Your task to perform on an android device: change the clock display to digital Image 0: 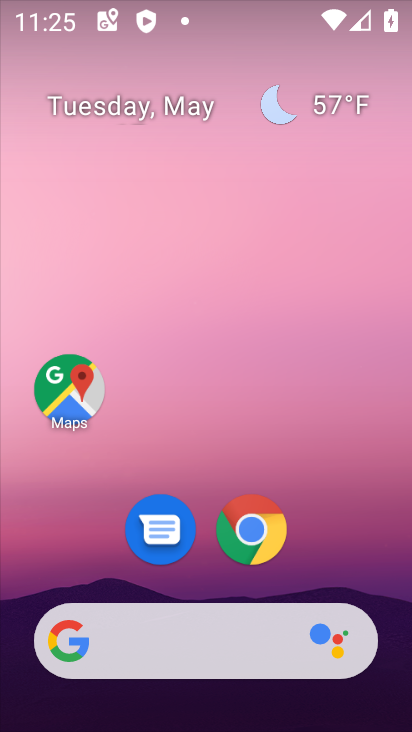
Step 0: drag from (202, 575) to (216, 79)
Your task to perform on an android device: change the clock display to digital Image 1: 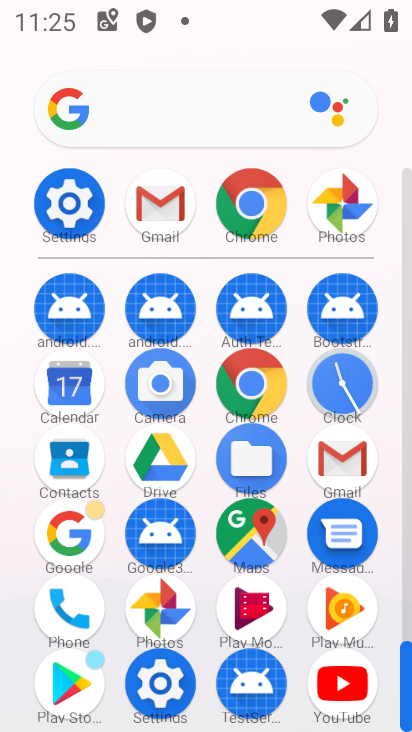
Step 1: click (332, 379)
Your task to perform on an android device: change the clock display to digital Image 2: 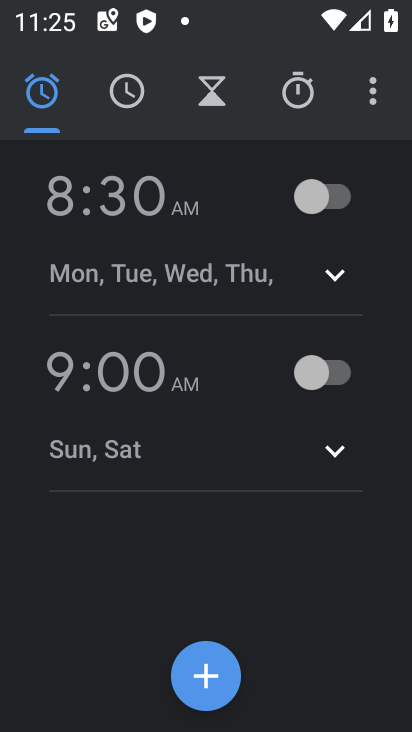
Step 2: click (389, 86)
Your task to perform on an android device: change the clock display to digital Image 3: 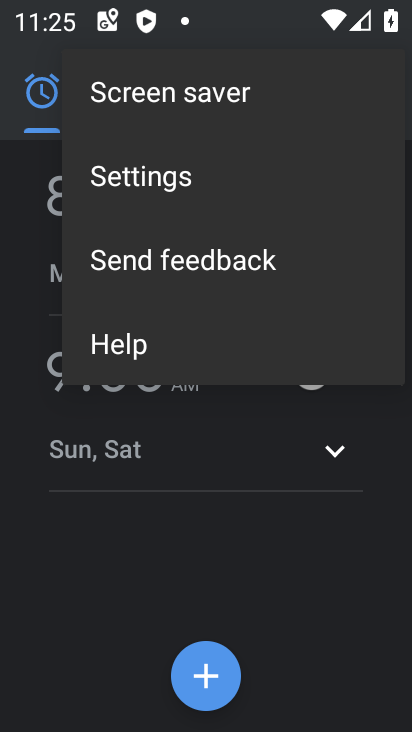
Step 3: click (216, 204)
Your task to perform on an android device: change the clock display to digital Image 4: 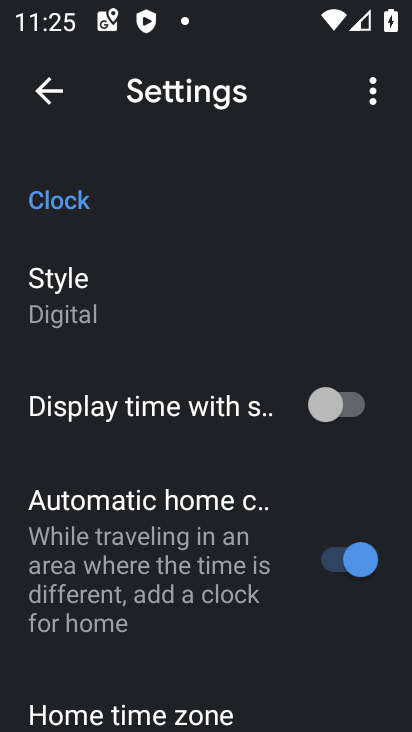
Step 4: task complete